Your task to perform on an android device: open chrome and create a bookmark for the current page Image 0: 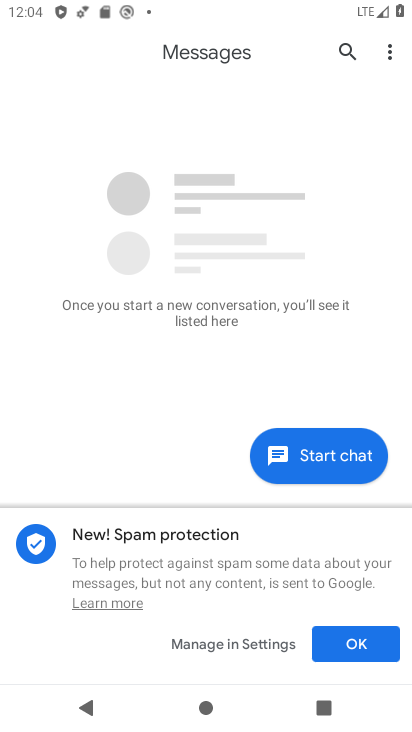
Step 0: press home button
Your task to perform on an android device: open chrome and create a bookmark for the current page Image 1: 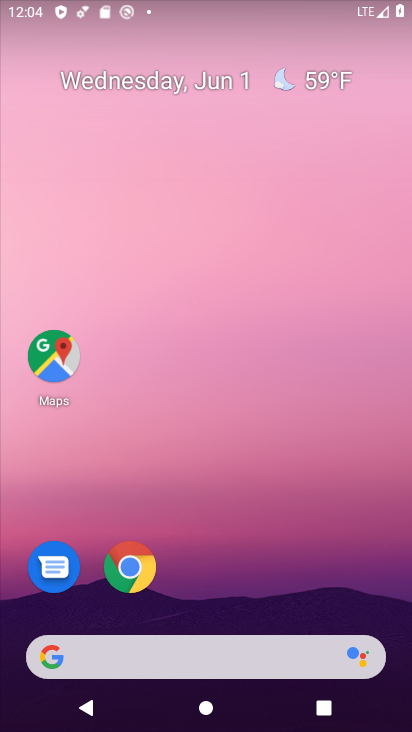
Step 1: click (138, 572)
Your task to perform on an android device: open chrome and create a bookmark for the current page Image 2: 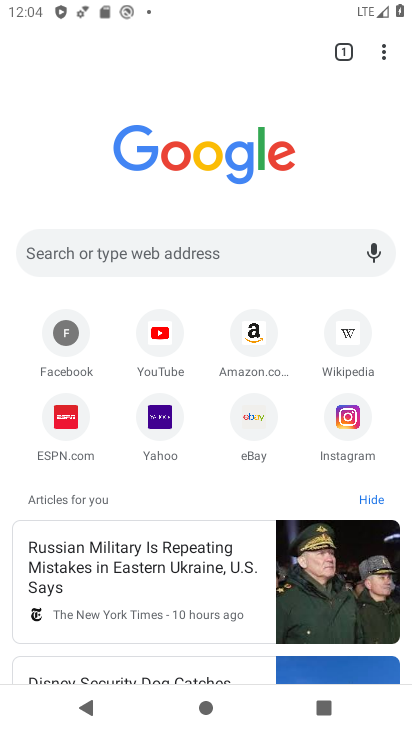
Step 2: click (379, 63)
Your task to perform on an android device: open chrome and create a bookmark for the current page Image 3: 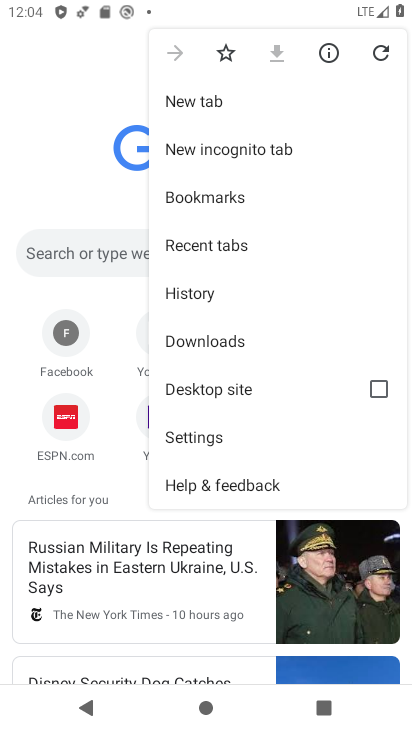
Step 3: click (228, 59)
Your task to perform on an android device: open chrome and create a bookmark for the current page Image 4: 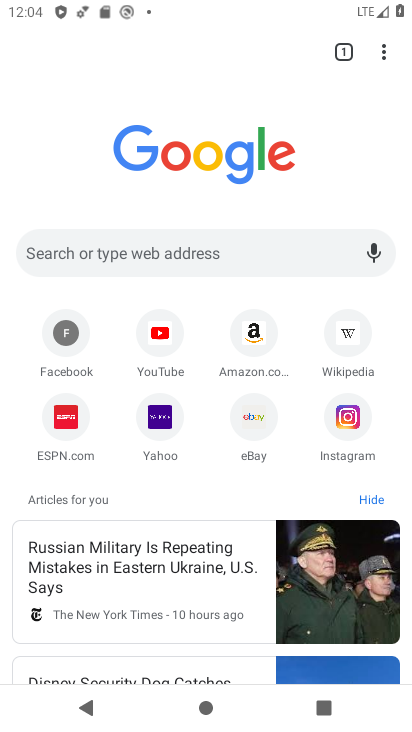
Step 4: task complete